Your task to perform on an android device: Search for sushi restaurants on Maps Image 0: 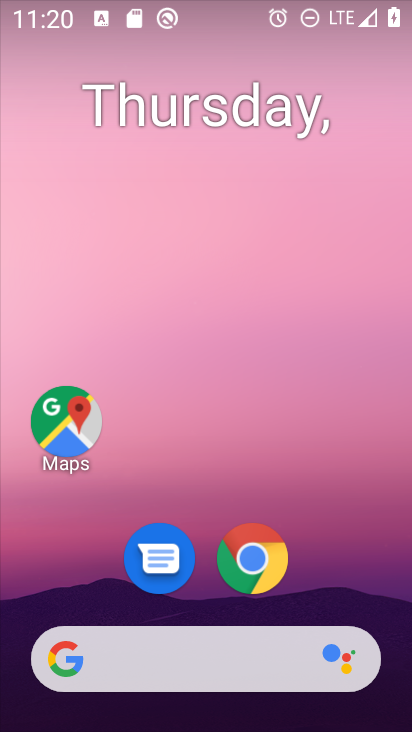
Step 0: click (62, 422)
Your task to perform on an android device: Search for sushi restaurants on Maps Image 1: 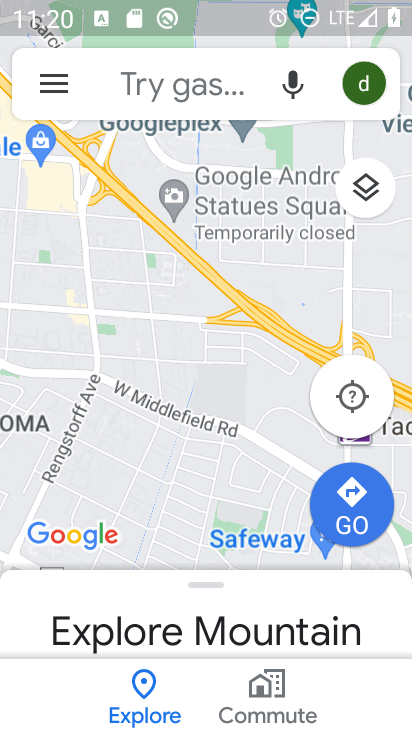
Step 1: click (167, 77)
Your task to perform on an android device: Search for sushi restaurants on Maps Image 2: 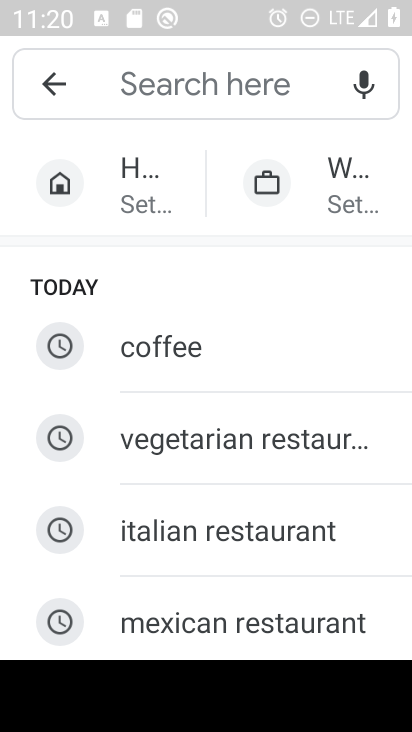
Step 2: type "sushi restaurants"
Your task to perform on an android device: Search for sushi restaurants on Maps Image 3: 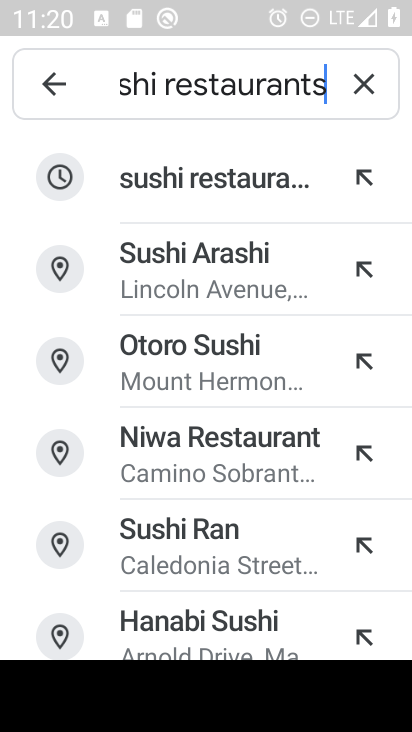
Step 3: click (206, 188)
Your task to perform on an android device: Search for sushi restaurants on Maps Image 4: 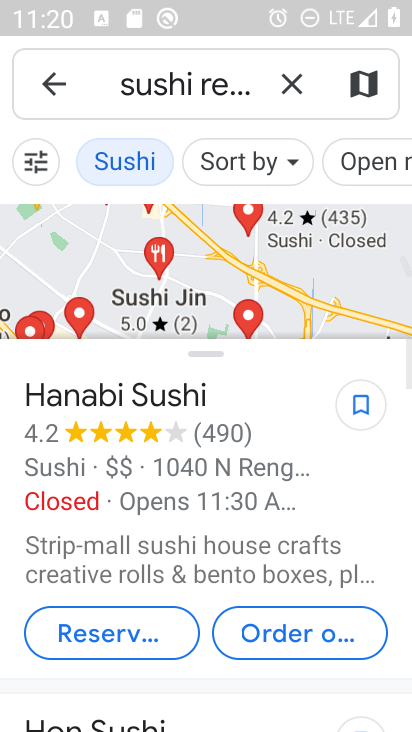
Step 4: task complete